Your task to perform on an android device: open wifi settings Image 0: 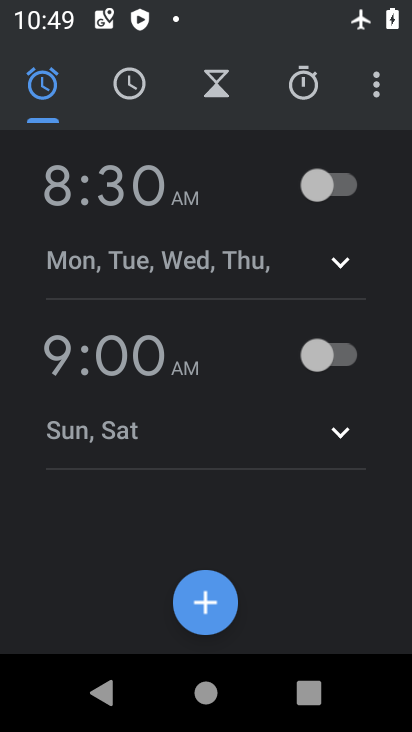
Step 0: press home button
Your task to perform on an android device: open wifi settings Image 1: 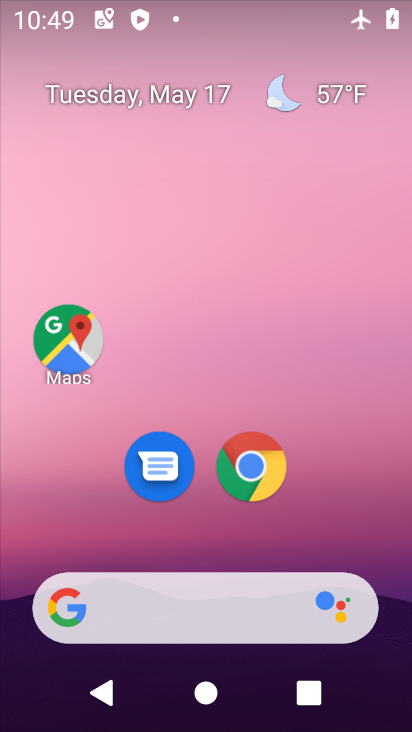
Step 1: drag from (236, 643) to (273, 136)
Your task to perform on an android device: open wifi settings Image 2: 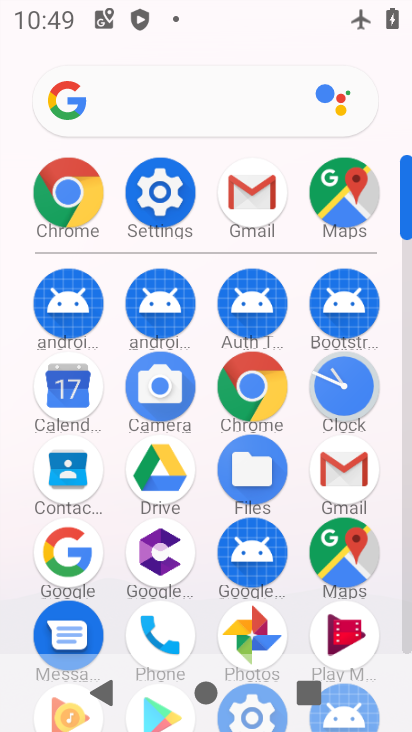
Step 2: click (161, 204)
Your task to perform on an android device: open wifi settings Image 3: 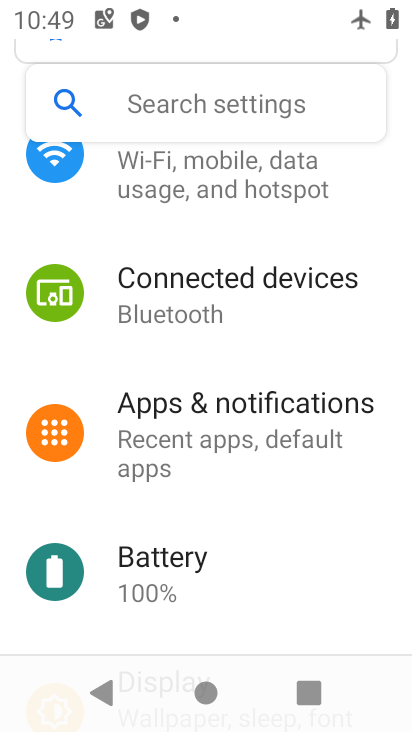
Step 3: click (158, 173)
Your task to perform on an android device: open wifi settings Image 4: 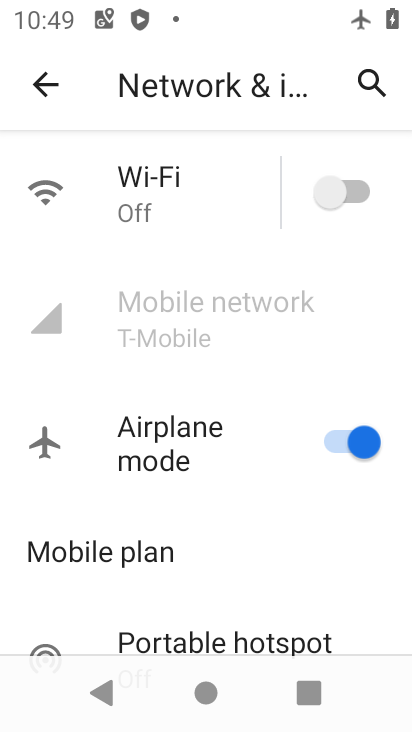
Step 4: click (144, 207)
Your task to perform on an android device: open wifi settings Image 5: 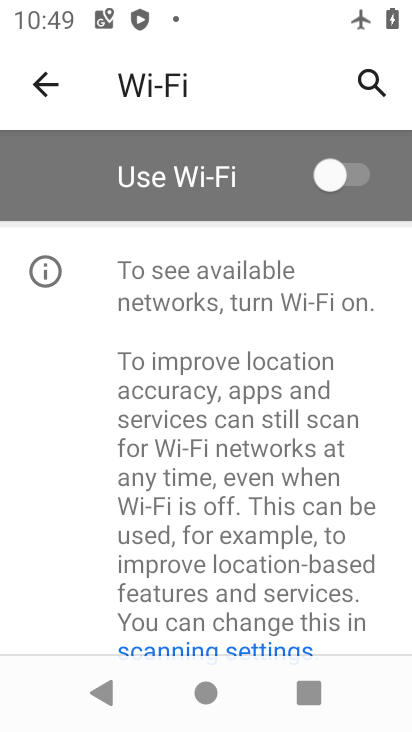
Step 5: task complete